Your task to perform on an android device: change the clock style Image 0: 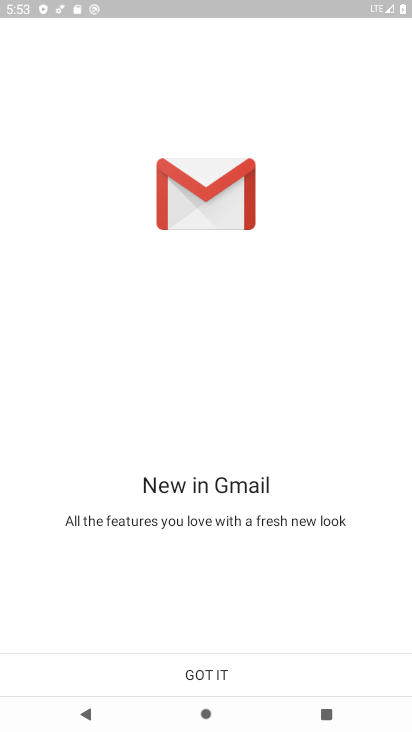
Step 0: press home button
Your task to perform on an android device: change the clock style Image 1: 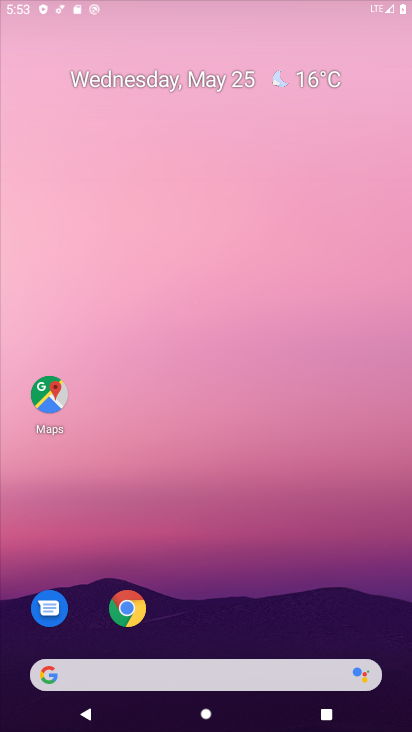
Step 1: drag from (190, 394) to (247, 18)
Your task to perform on an android device: change the clock style Image 2: 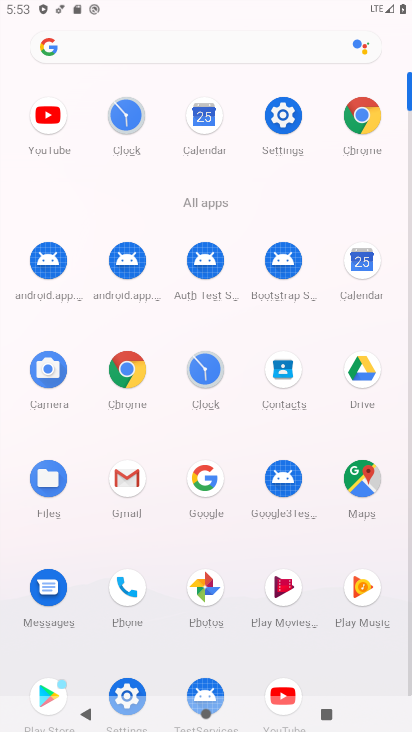
Step 2: click (140, 119)
Your task to perform on an android device: change the clock style Image 3: 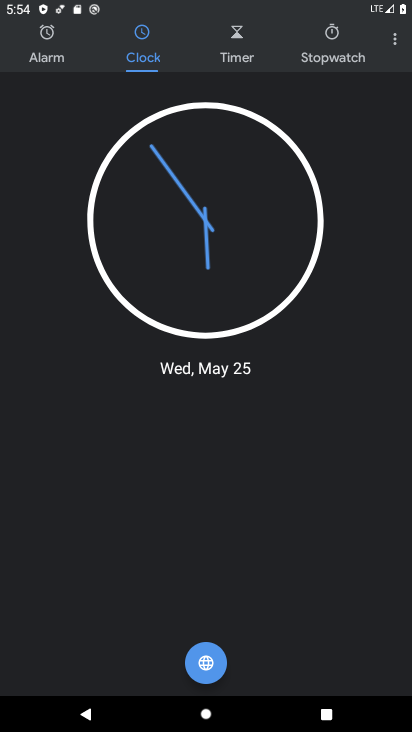
Step 3: click (393, 43)
Your task to perform on an android device: change the clock style Image 4: 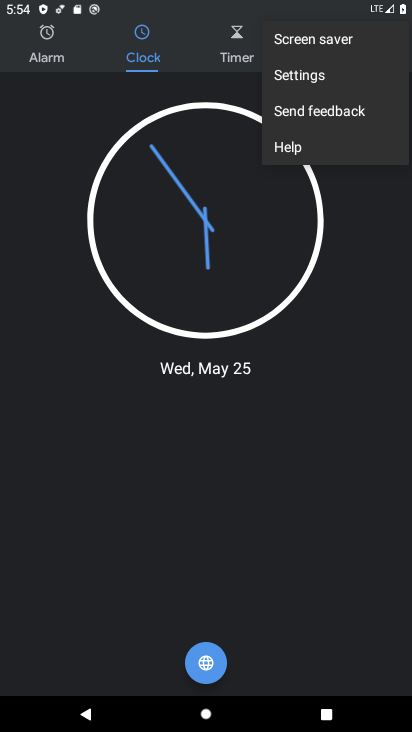
Step 4: click (350, 81)
Your task to perform on an android device: change the clock style Image 5: 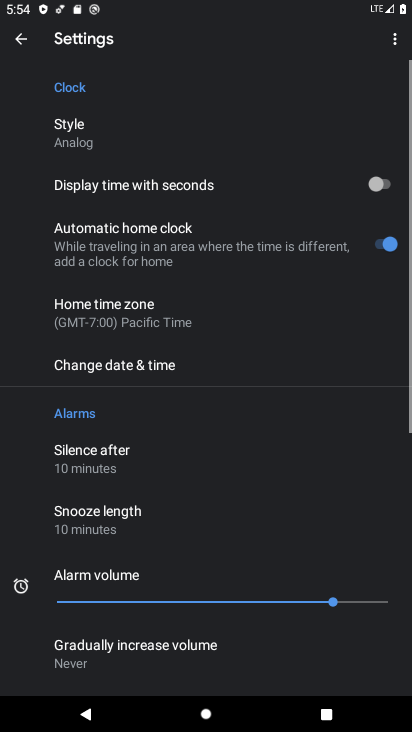
Step 5: click (116, 144)
Your task to perform on an android device: change the clock style Image 6: 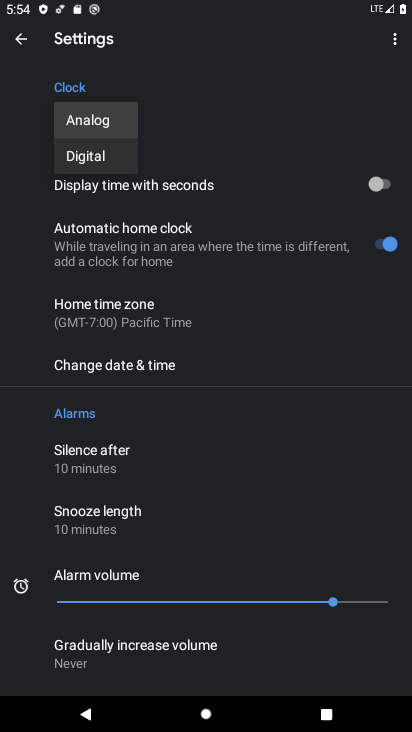
Step 6: click (102, 151)
Your task to perform on an android device: change the clock style Image 7: 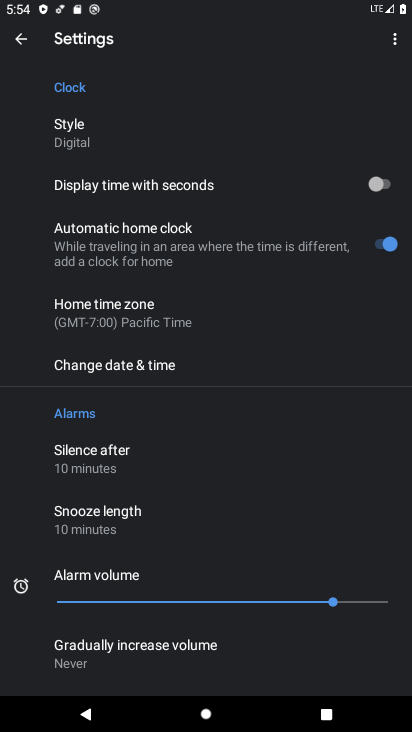
Step 7: task complete